Your task to perform on an android device: turn notification dots on Image 0: 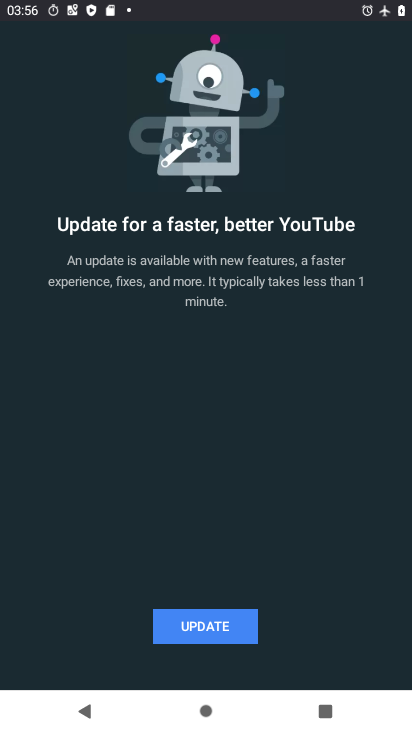
Step 0: press home button
Your task to perform on an android device: turn notification dots on Image 1: 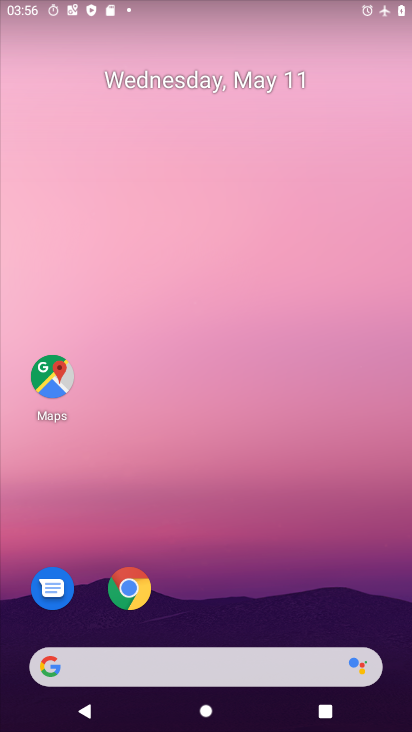
Step 1: drag from (222, 614) to (224, 252)
Your task to perform on an android device: turn notification dots on Image 2: 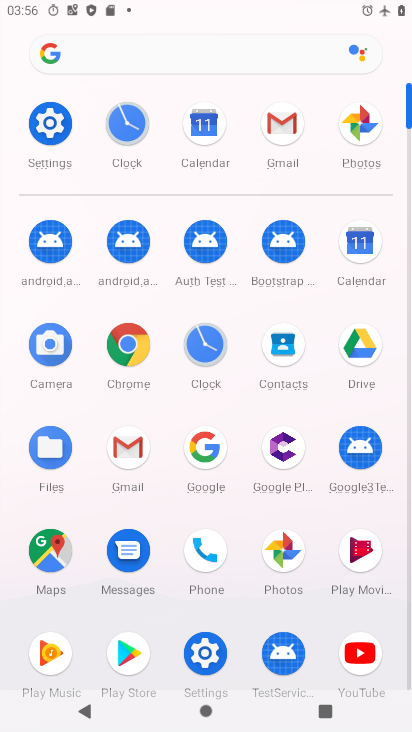
Step 2: click (45, 135)
Your task to perform on an android device: turn notification dots on Image 3: 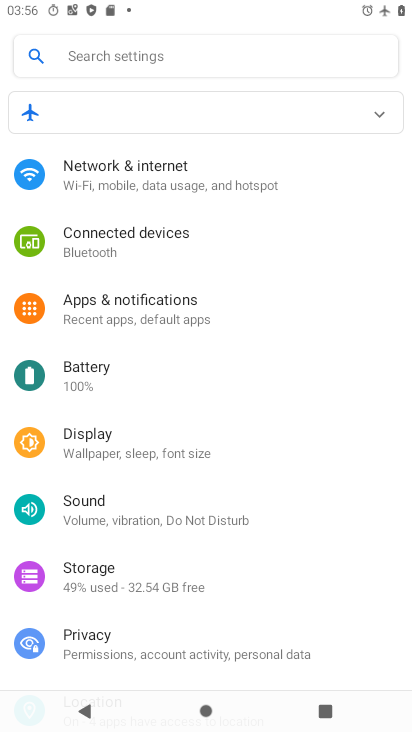
Step 3: click (178, 328)
Your task to perform on an android device: turn notification dots on Image 4: 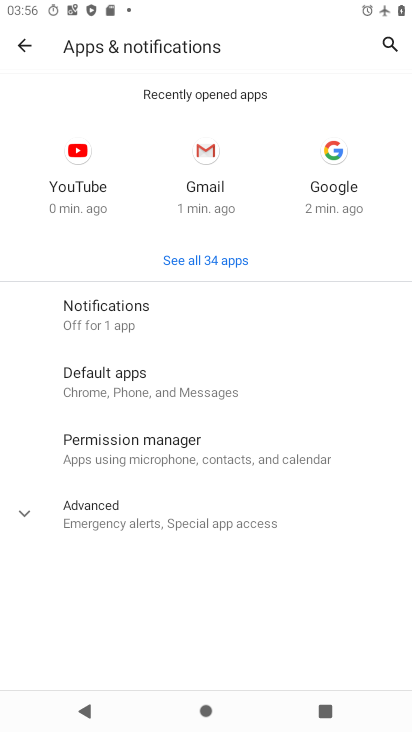
Step 4: click (161, 311)
Your task to perform on an android device: turn notification dots on Image 5: 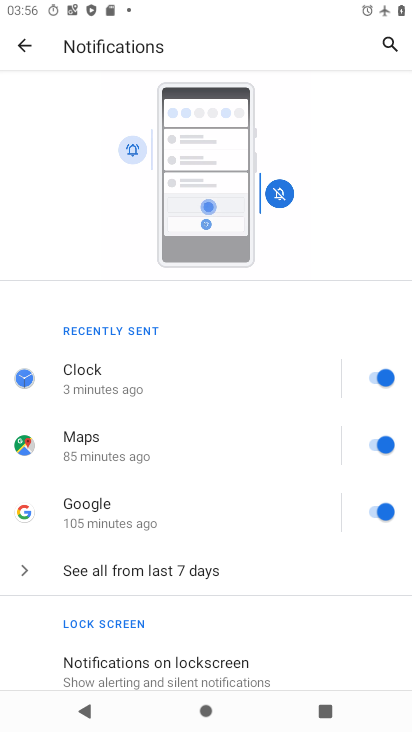
Step 5: drag from (168, 649) to (191, 328)
Your task to perform on an android device: turn notification dots on Image 6: 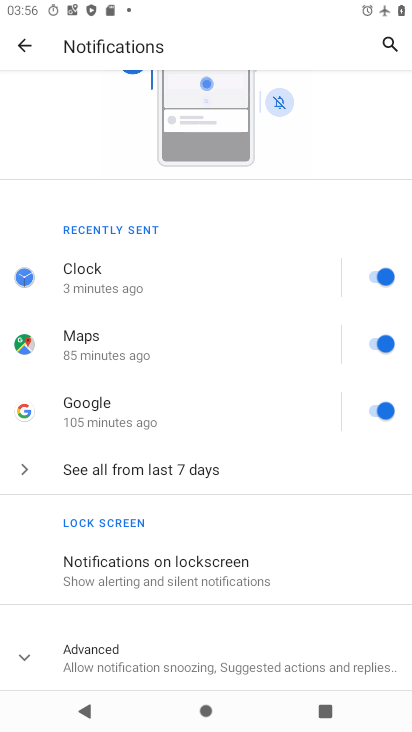
Step 6: click (139, 666)
Your task to perform on an android device: turn notification dots on Image 7: 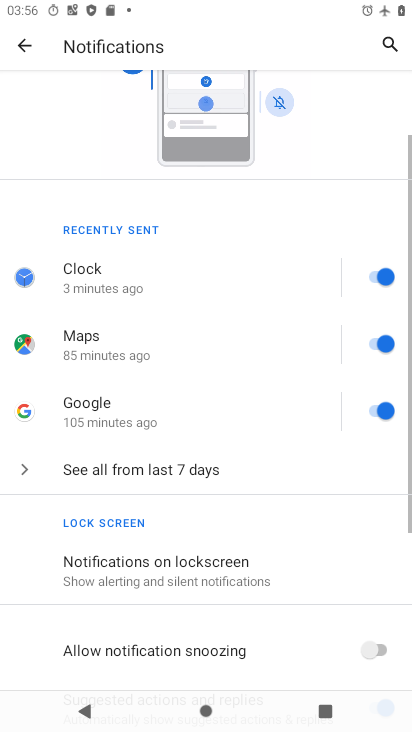
Step 7: drag from (140, 664) to (218, 315)
Your task to perform on an android device: turn notification dots on Image 8: 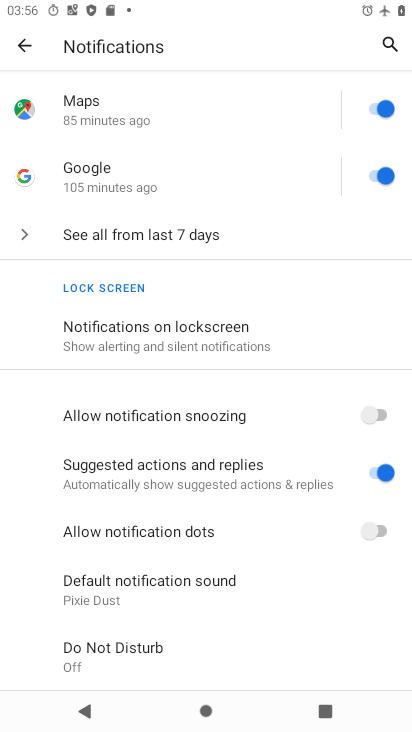
Step 8: click (392, 527)
Your task to perform on an android device: turn notification dots on Image 9: 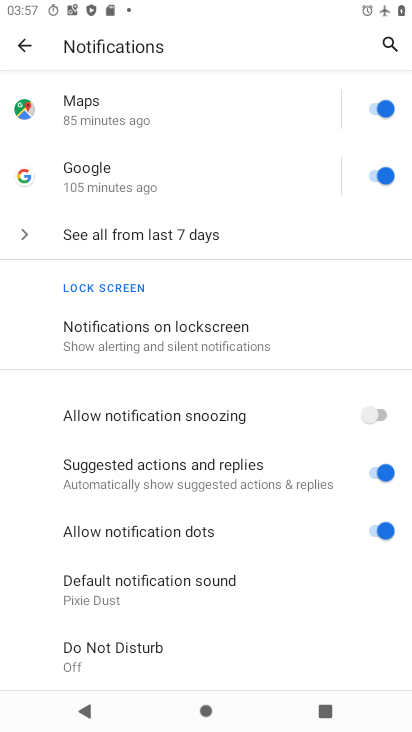
Step 9: task complete